Your task to perform on an android device: empty trash in google photos Image 0: 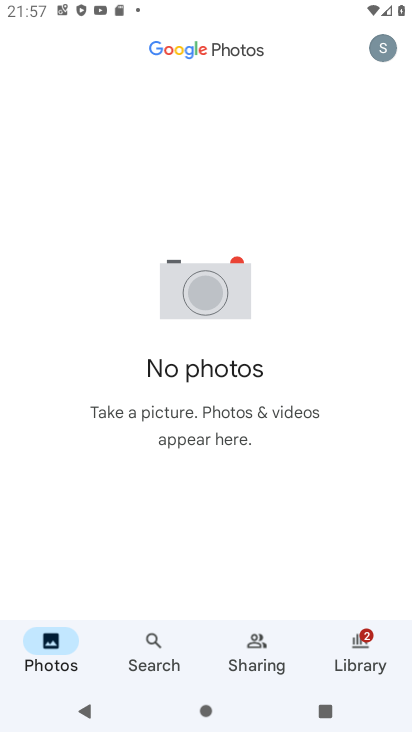
Step 0: press home button
Your task to perform on an android device: empty trash in google photos Image 1: 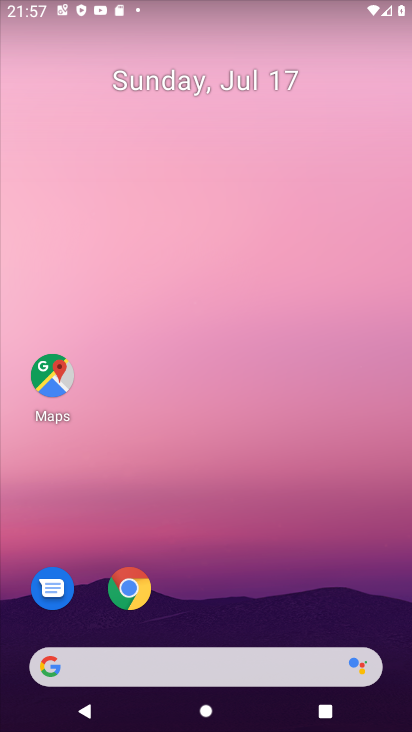
Step 1: drag from (264, 633) to (372, 79)
Your task to perform on an android device: empty trash in google photos Image 2: 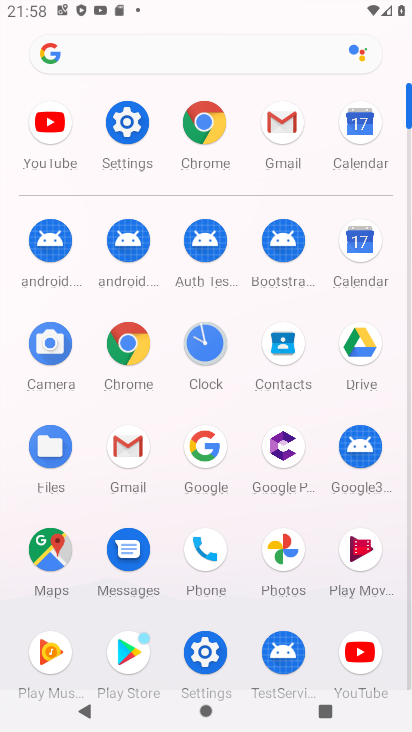
Step 2: click (273, 546)
Your task to perform on an android device: empty trash in google photos Image 3: 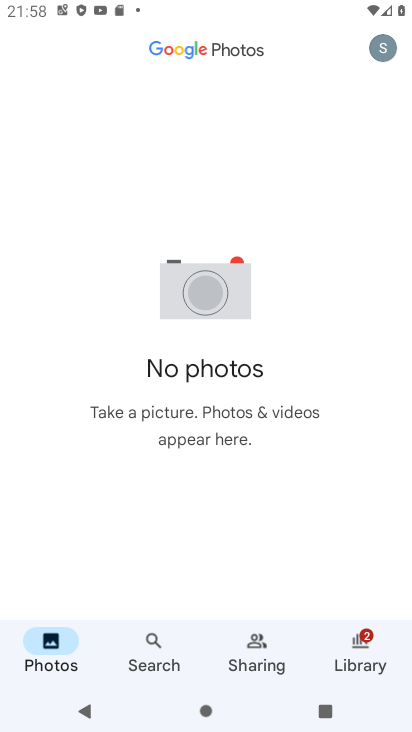
Step 3: click (336, 667)
Your task to perform on an android device: empty trash in google photos Image 4: 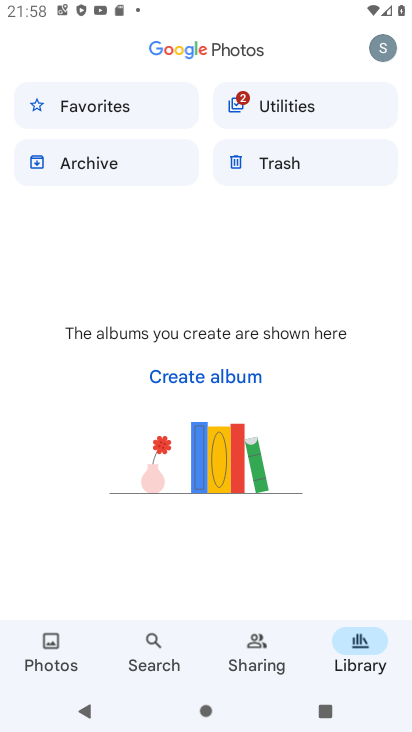
Step 4: click (276, 161)
Your task to perform on an android device: empty trash in google photos Image 5: 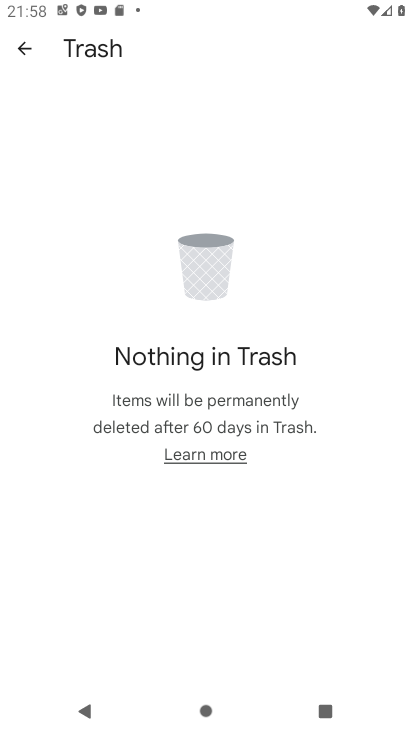
Step 5: task complete